Your task to perform on an android device: add a contact Image 0: 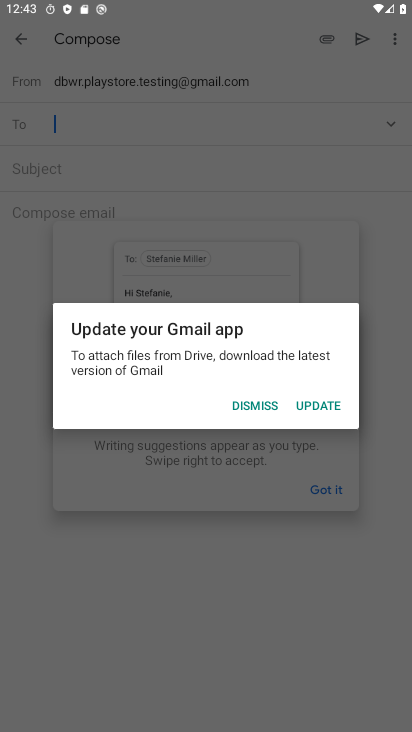
Step 0: press home button
Your task to perform on an android device: add a contact Image 1: 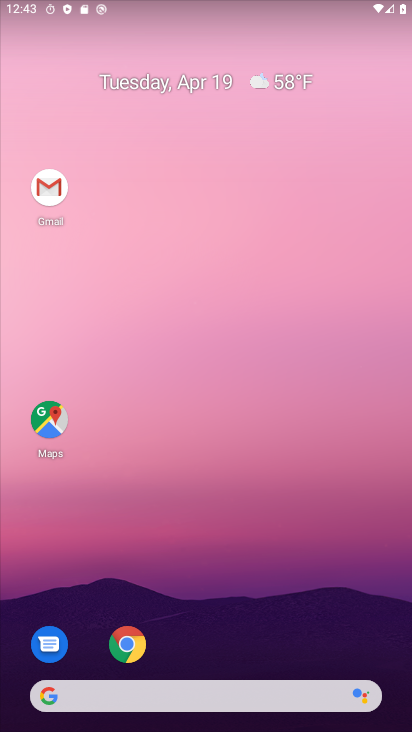
Step 1: drag from (247, 637) to (225, 161)
Your task to perform on an android device: add a contact Image 2: 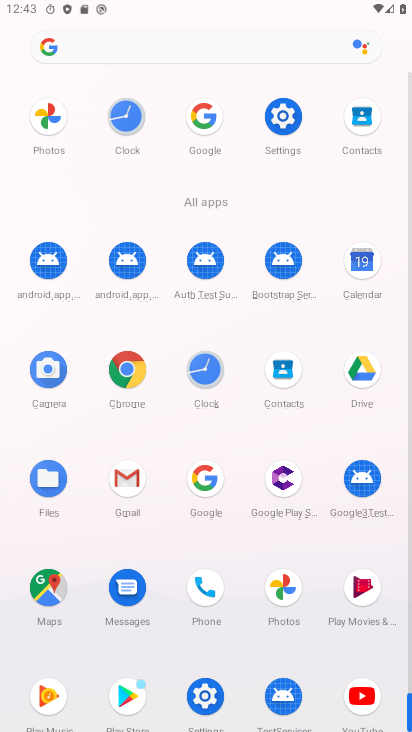
Step 2: drag from (244, 593) to (231, 215)
Your task to perform on an android device: add a contact Image 3: 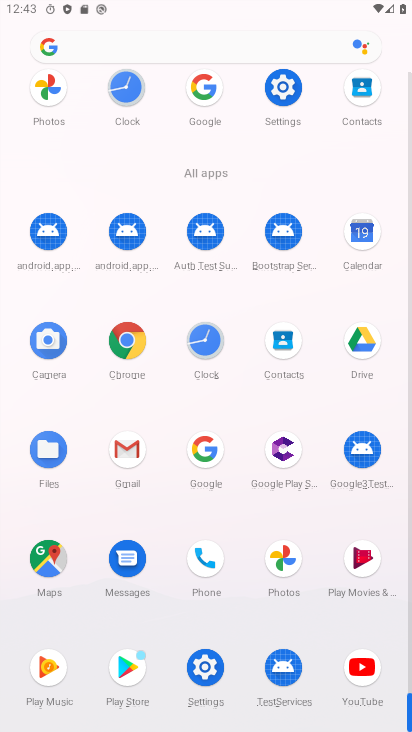
Step 3: click (289, 341)
Your task to perform on an android device: add a contact Image 4: 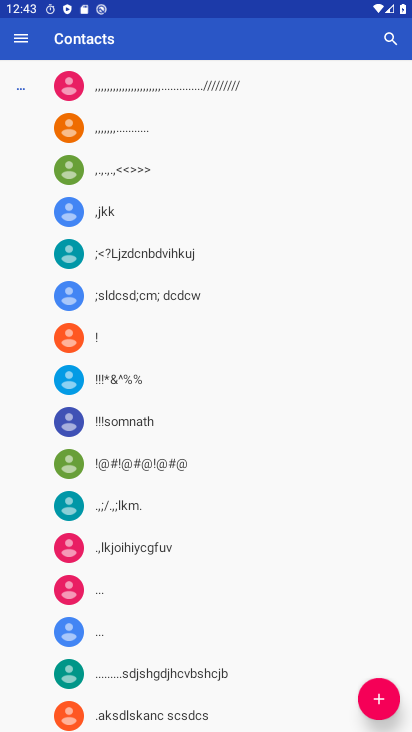
Step 4: click (369, 701)
Your task to perform on an android device: add a contact Image 5: 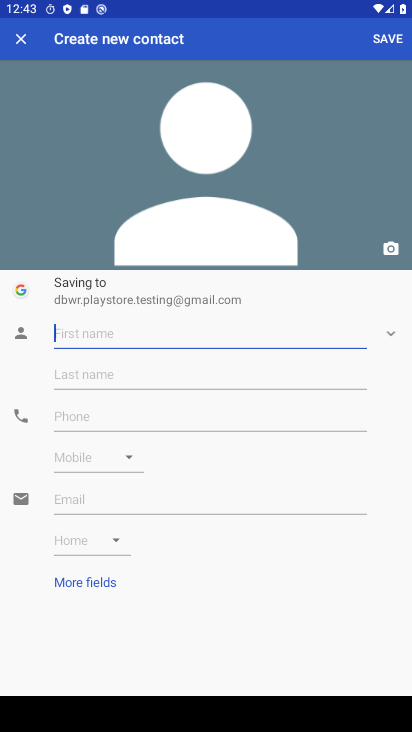
Step 5: type "yahoo"
Your task to perform on an android device: add a contact Image 6: 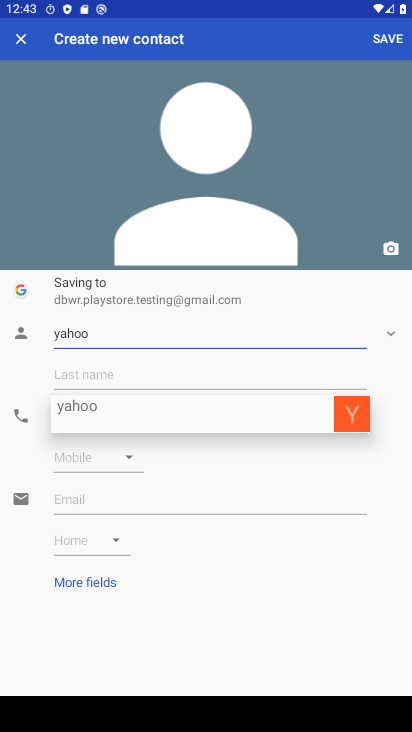
Step 6: click (74, 375)
Your task to perform on an android device: add a contact Image 7: 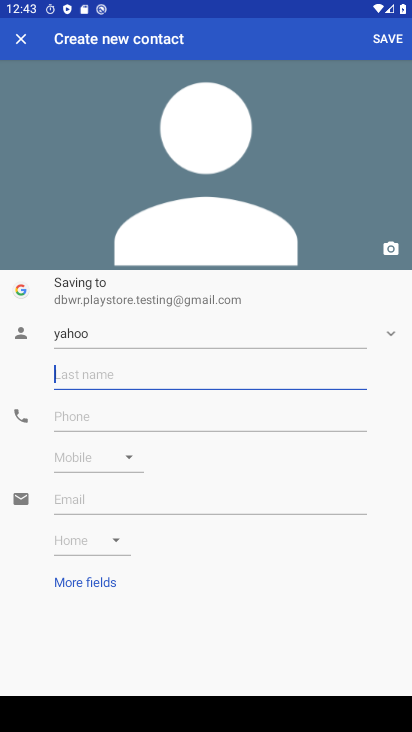
Step 7: type "google"
Your task to perform on an android device: add a contact Image 8: 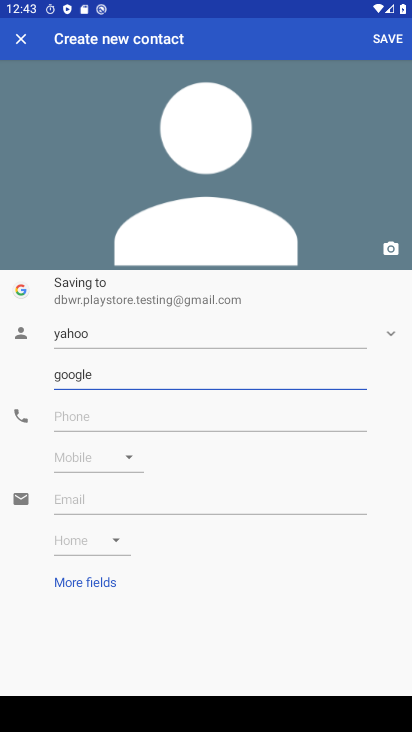
Step 8: click (200, 421)
Your task to perform on an android device: add a contact Image 9: 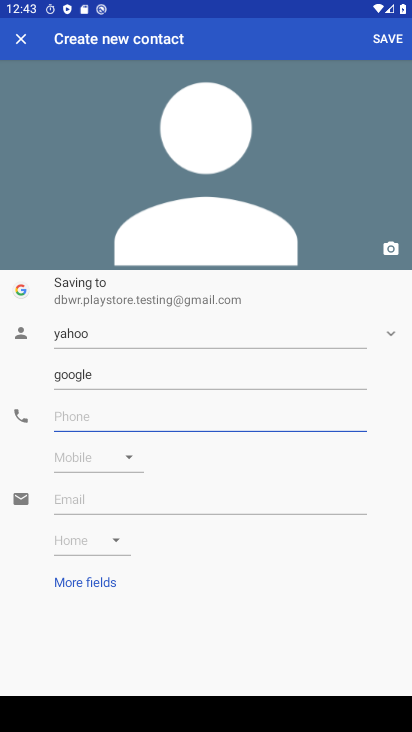
Step 9: type "8876543890"
Your task to perform on an android device: add a contact Image 10: 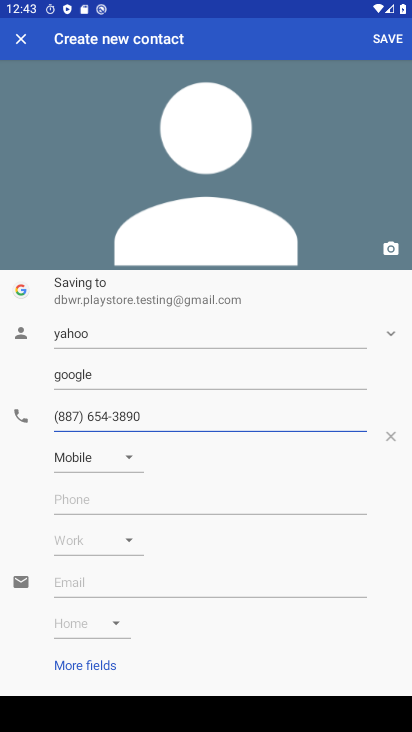
Step 10: click (392, 40)
Your task to perform on an android device: add a contact Image 11: 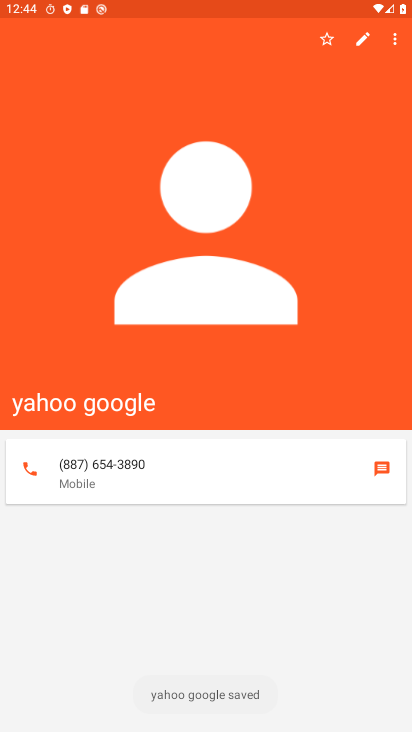
Step 11: task complete